Your task to perform on an android device: turn smart compose on in the gmail app Image 0: 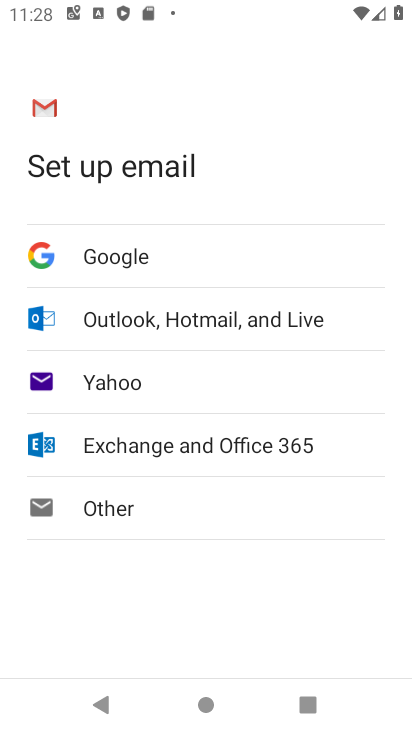
Step 0: press home button
Your task to perform on an android device: turn smart compose on in the gmail app Image 1: 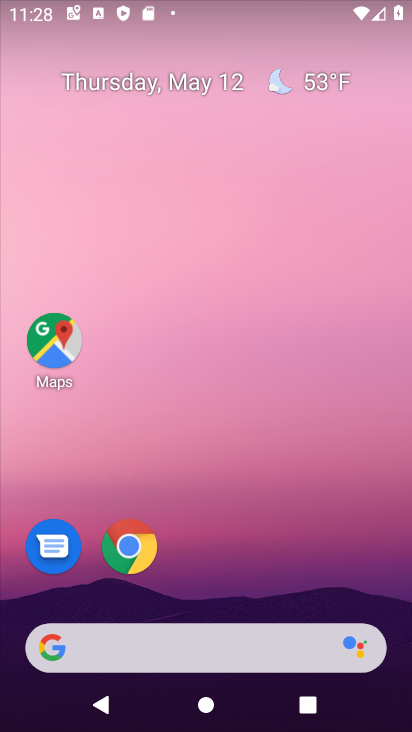
Step 1: drag from (235, 667) to (175, 164)
Your task to perform on an android device: turn smart compose on in the gmail app Image 2: 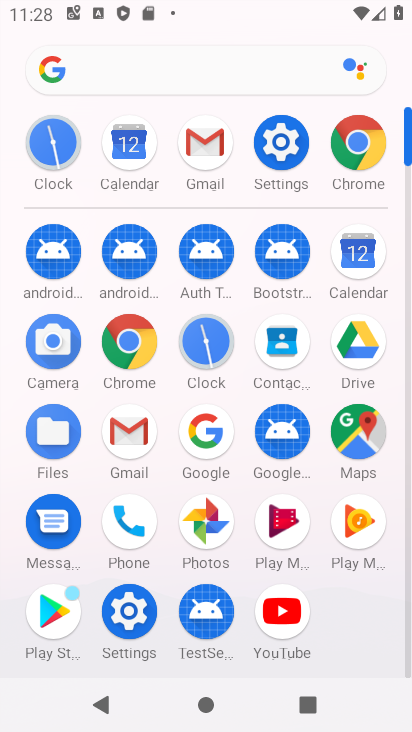
Step 2: click (209, 150)
Your task to perform on an android device: turn smart compose on in the gmail app Image 3: 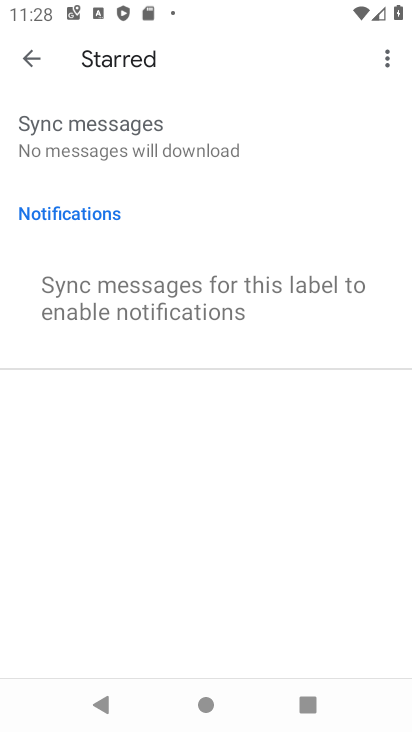
Step 3: click (34, 59)
Your task to perform on an android device: turn smart compose on in the gmail app Image 4: 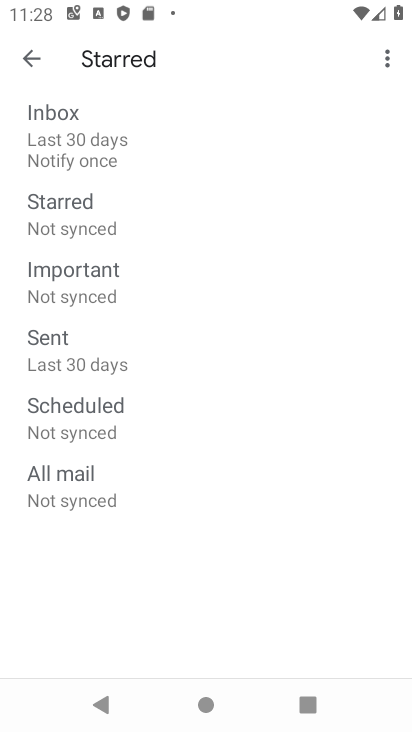
Step 4: click (29, 61)
Your task to perform on an android device: turn smart compose on in the gmail app Image 5: 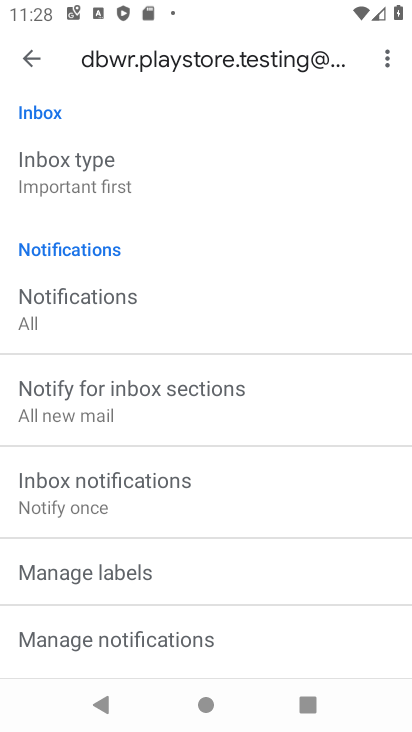
Step 5: drag from (191, 650) to (235, 305)
Your task to perform on an android device: turn smart compose on in the gmail app Image 6: 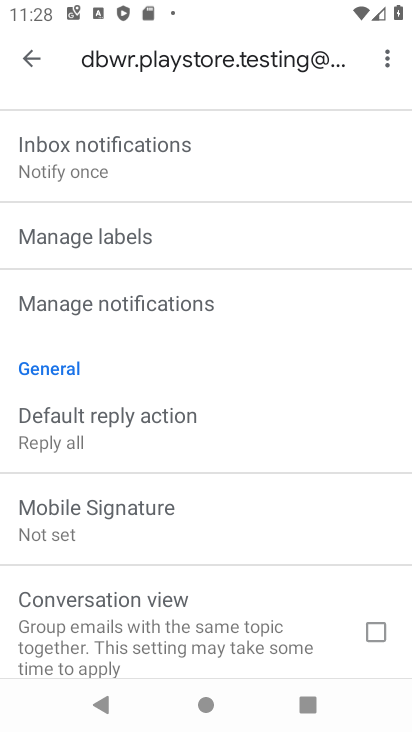
Step 6: drag from (214, 532) to (219, 276)
Your task to perform on an android device: turn smart compose on in the gmail app Image 7: 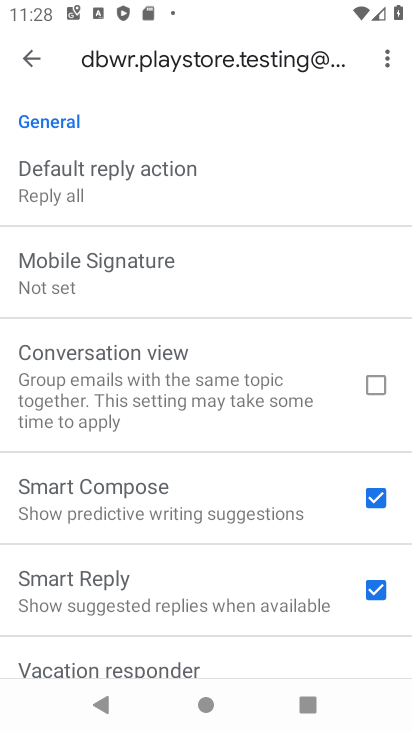
Step 7: drag from (181, 583) to (193, 481)
Your task to perform on an android device: turn smart compose on in the gmail app Image 8: 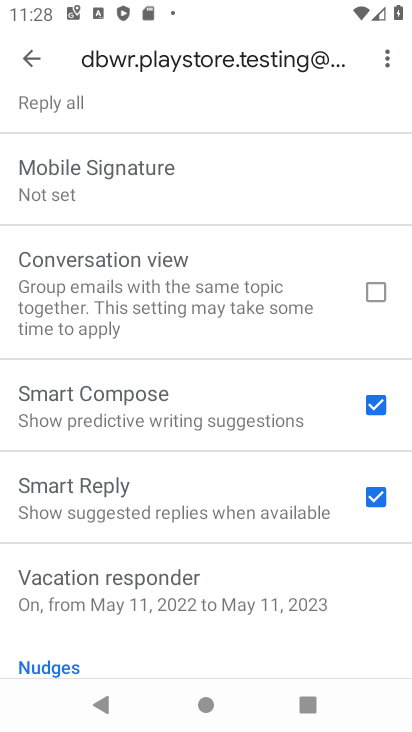
Step 8: click (351, 394)
Your task to perform on an android device: turn smart compose on in the gmail app Image 9: 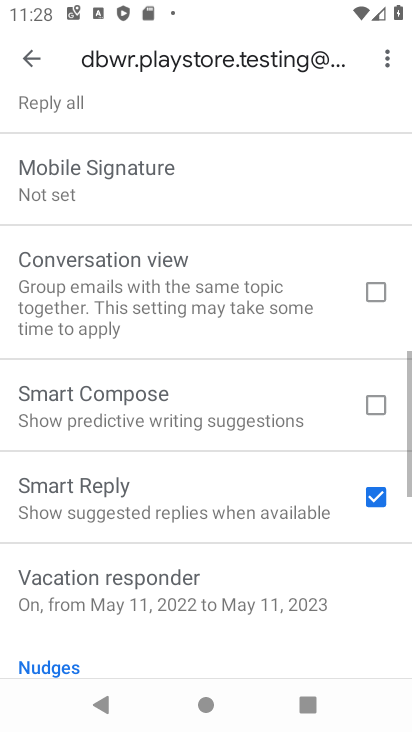
Step 9: click (349, 395)
Your task to perform on an android device: turn smart compose on in the gmail app Image 10: 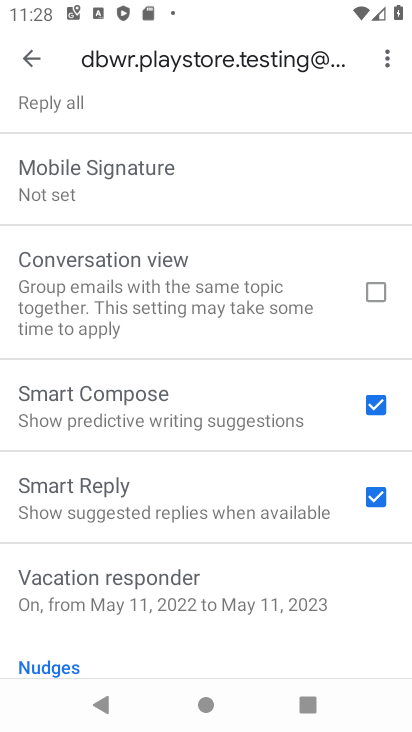
Step 10: task complete